Your task to perform on an android device: Open the calendar app, open the side menu, and click the "Day" option Image 0: 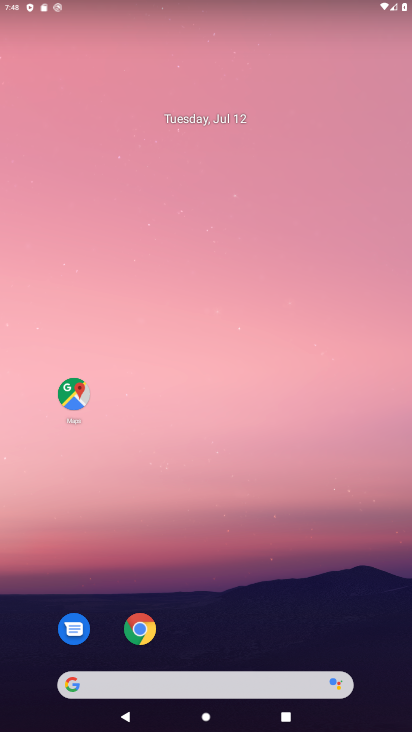
Step 0: drag from (98, 703) to (218, 30)
Your task to perform on an android device: Open the calendar app, open the side menu, and click the "Day" option Image 1: 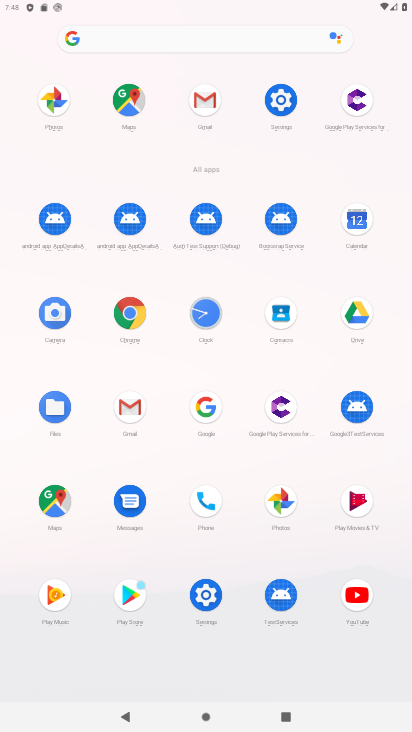
Step 1: click (365, 211)
Your task to perform on an android device: Open the calendar app, open the side menu, and click the "Day" option Image 2: 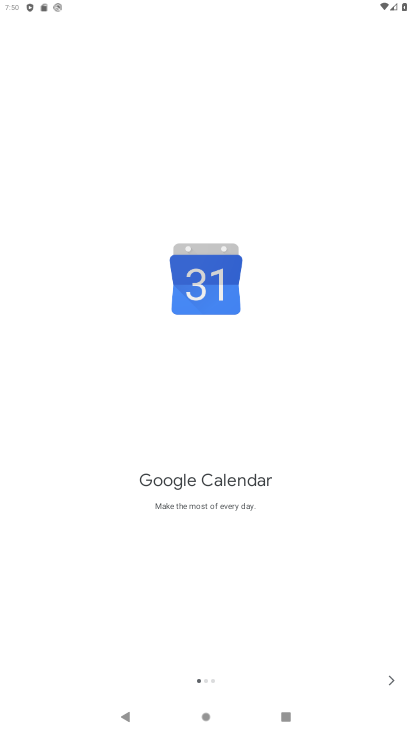
Step 2: click (389, 681)
Your task to perform on an android device: Open the calendar app, open the side menu, and click the "Day" option Image 3: 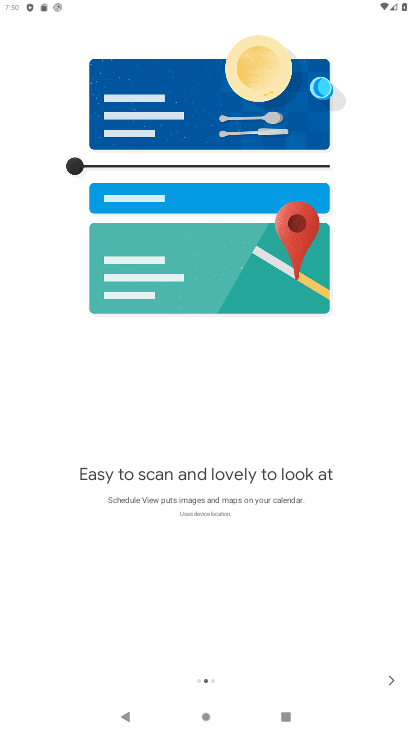
Step 3: click (389, 681)
Your task to perform on an android device: Open the calendar app, open the side menu, and click the "Day" option Image 4: 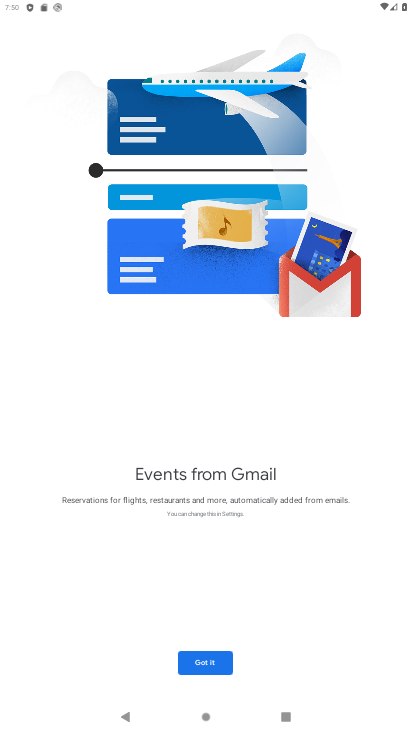
Step 4: click (189, 658)
Your task to perform on an android device: Open the calendar app, open the side menu, and click the "Day" option Image 5: 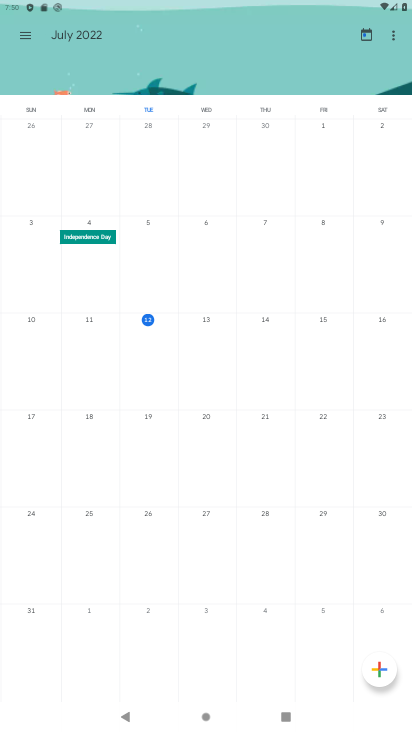
Step 5: click (22, 35)
Your task to perform on an android device: Open the calendar app, open the side menu, and click the "Day" option Image 6: 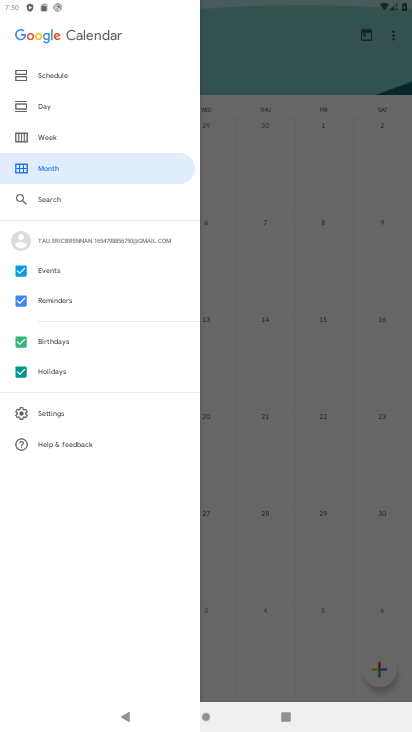
Step 6: click (60, 106)
Your task to perform on an android device: Open the calendar app, open the side menu, and click the "Day" option Image 7: 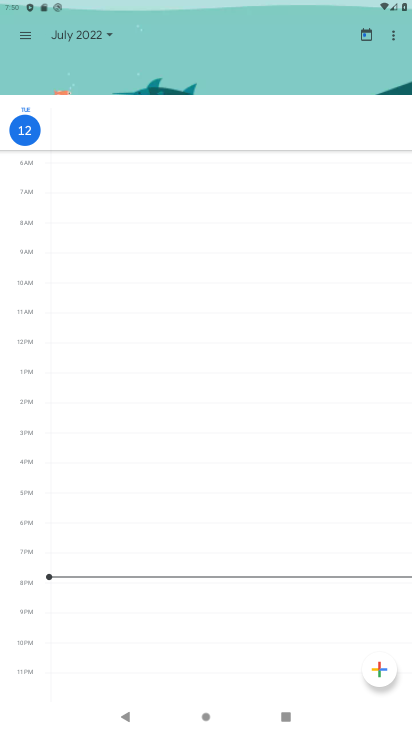
Step 7: task complete